Your task to perform on an android device: Open settings Image 0: 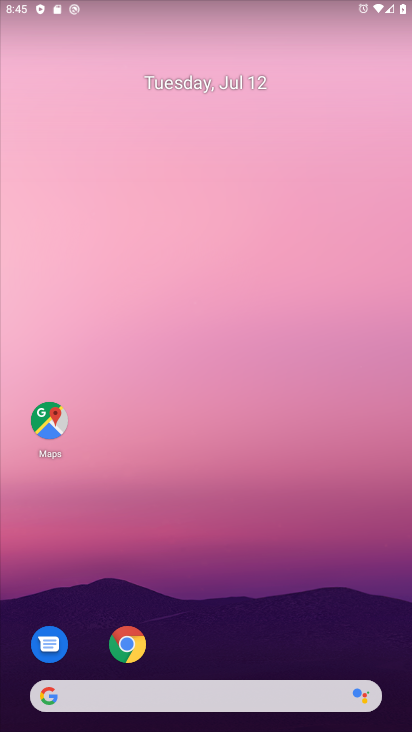
Step 0: drag from (28, 719) to (137, 207)
Your task to perform on an android device: Open settings Image 1: 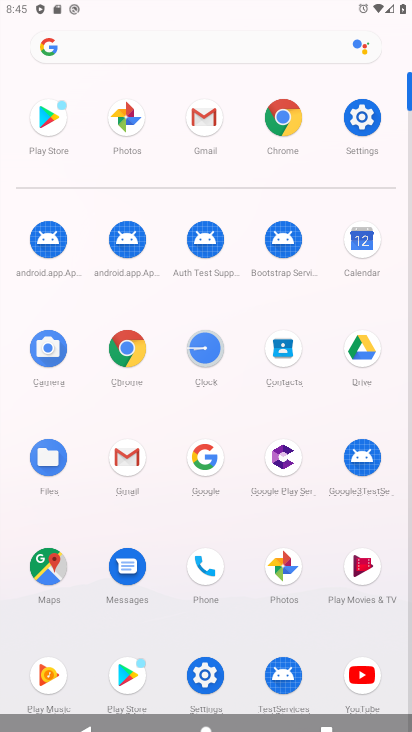
Step 1: click (193, 673)
Your task to perform on an android device: Open settings Image 2: 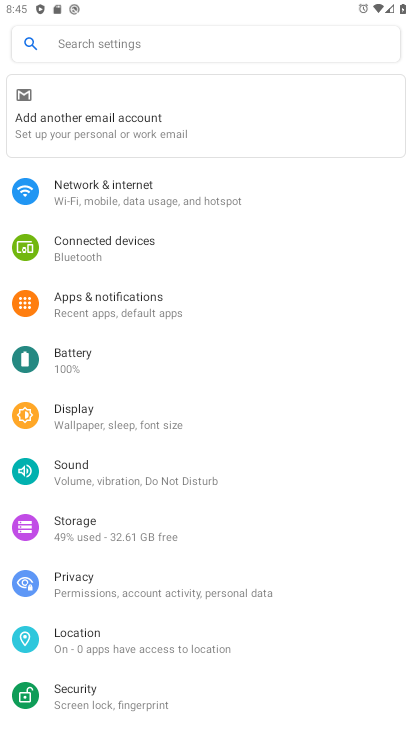
Step 2: task complete